Your task to perform on an android device: Add razer blade to the cart on amazon Image 0: 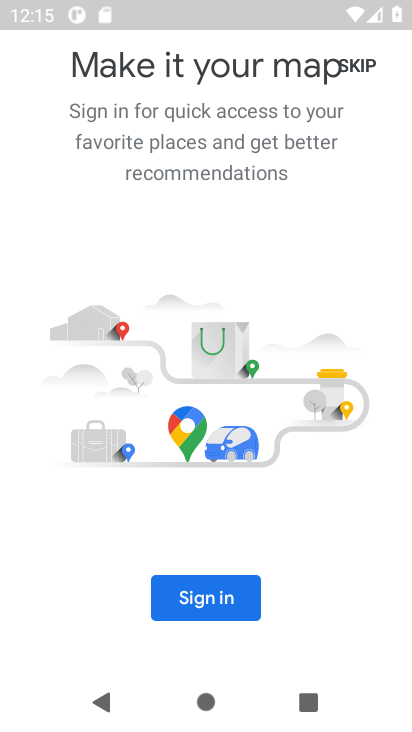
Step 0: press home button
Your task to perform on an android device: Add razer blade to the cart on amazon Image 1: 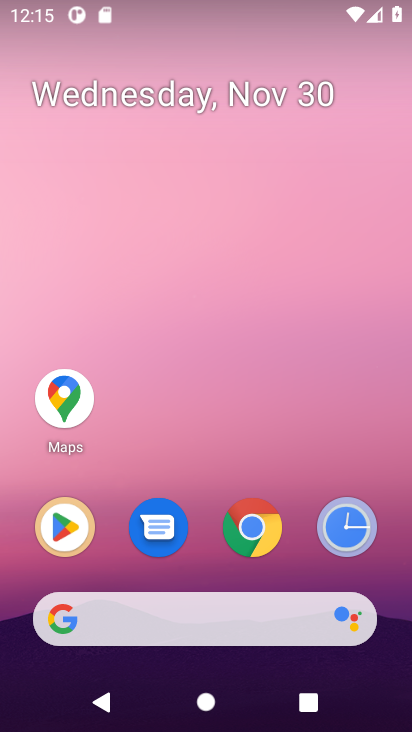
Step 1: click (216, 636)
Your task to perform on an android device: Add razer blade to the cart on amazon Image 2: 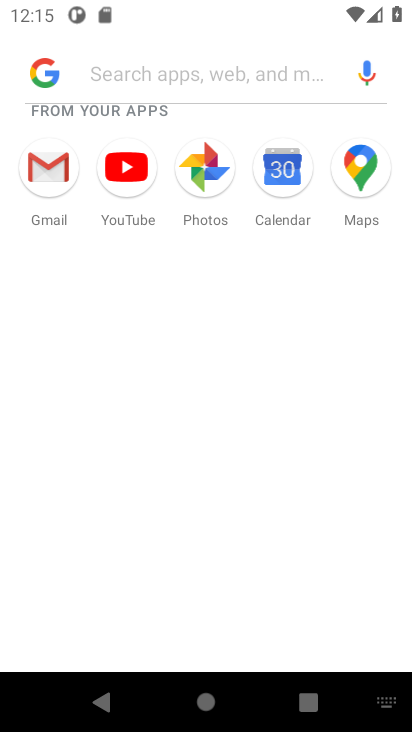
Step 2: type "amazon"
Your task to perform on an android device: Add razer blade to the cart on amazon Image 3: 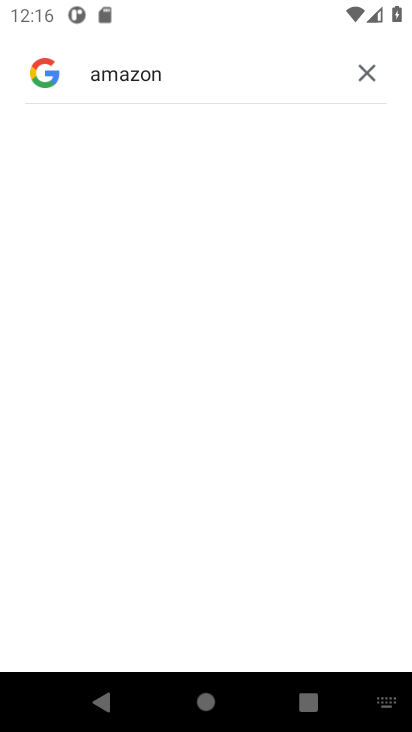
Step 3: press home button
Your task to perform on an android device: Add razer blade to the cart on amazon Image 4: 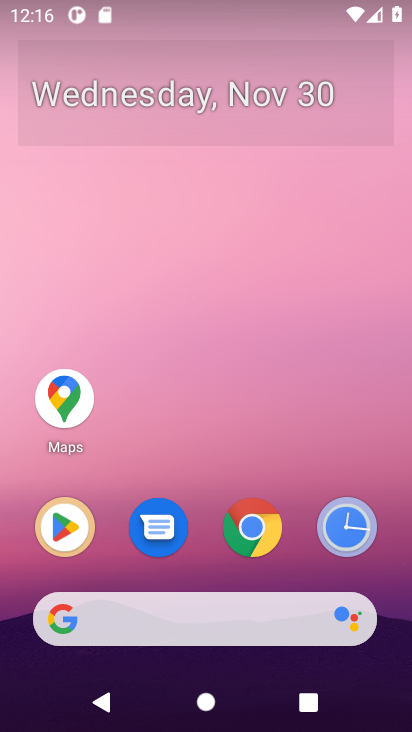
Step 4: click (252, 542)
Your task to perform on an android device: Add razer blade to the cart on amazon Image 5: 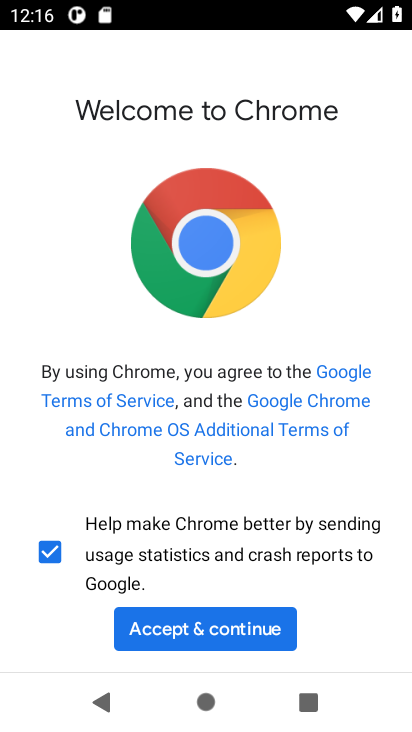
Step 5: click (217, 646)
Your task to perform on an android device: Add razer blade to the cart on amazon Image 6: 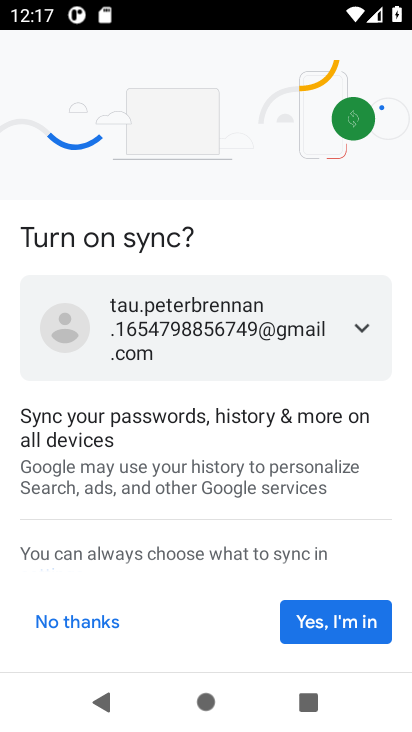
Step 6: click (327, 632)
Your task to perform on an android device: Add razer blade to the cart on amazon Image 7: 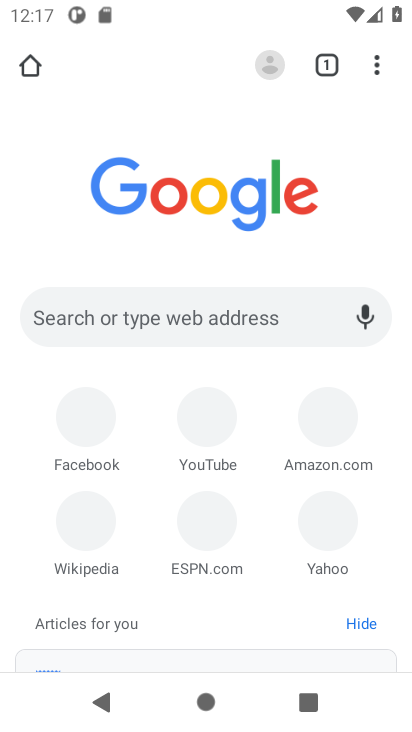
Step 7: click (190, 339)
Your task to perform on an android device: Add razer blade to the cart on amazon Image 8: 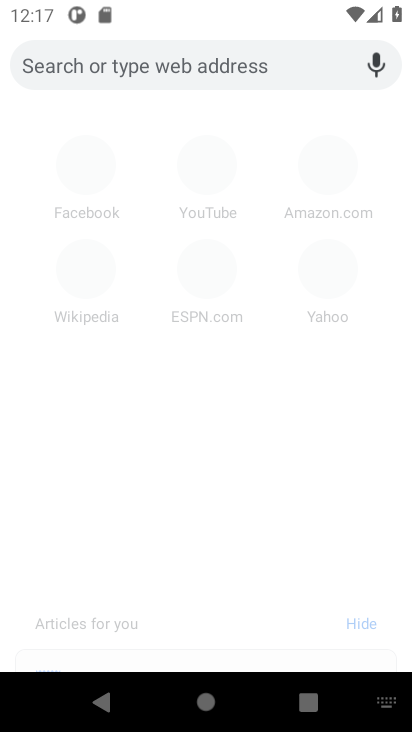
Step 8: type "amazon"
Your task to perform on an android device: Add razer blade to the cart on amazon Image 9: 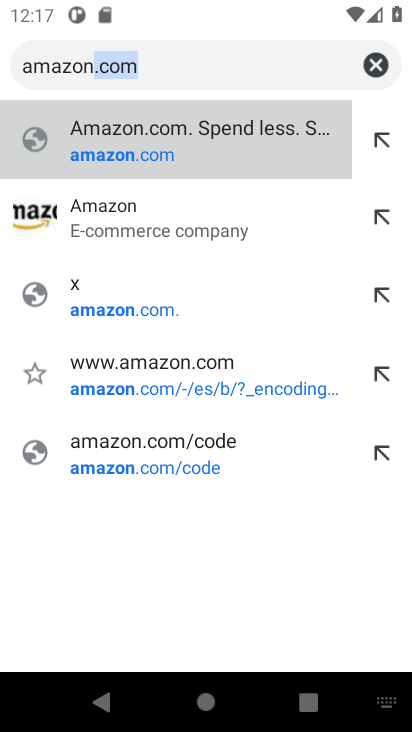
Step 9: click (149, 162)
Your task to perform on an android device: Add razer blade to the cart on amazon Image 10: 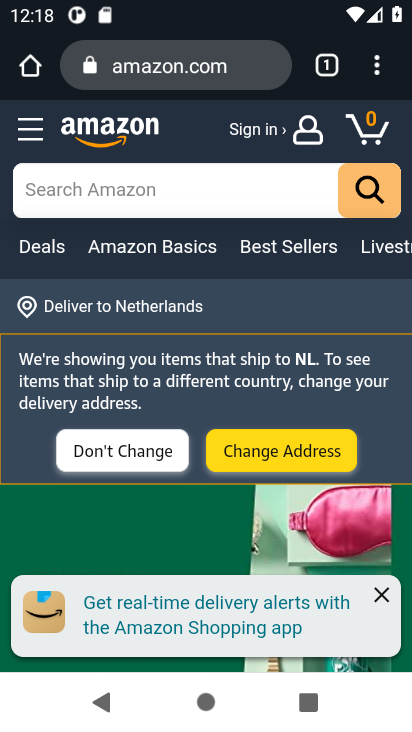
Step 10: click (129, 180)
Your task to perform on an android device: Add razer blade to the cart on amazon Image 11: 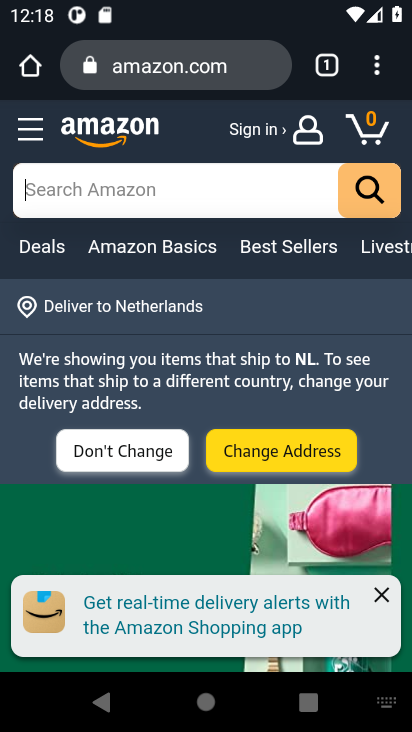
Step 11: type "razer blade"
Your task to perform on an android device: Add razer blade to the cart on amazon Image 12: 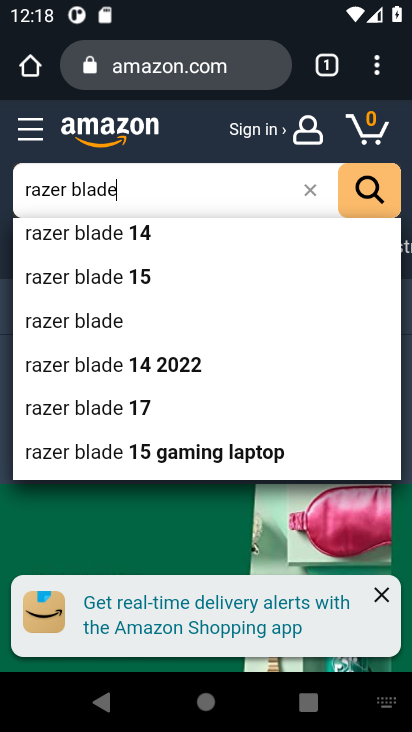
Step 12: click (367, 179)
Your task to perform on an android device: Add razer blade to the cart on amazon Image 13: 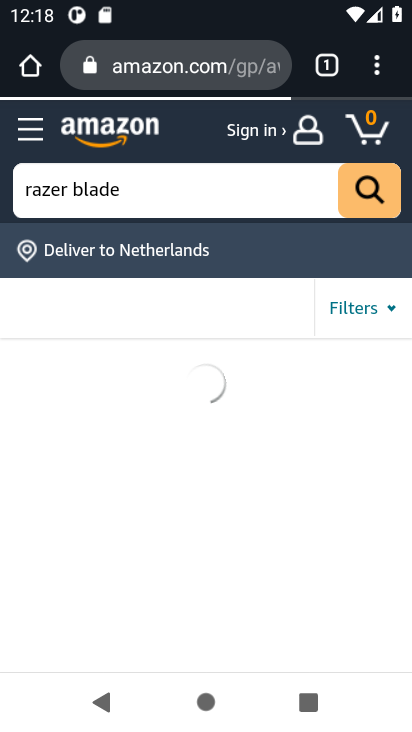
Step 13: task complete